Your task to perform on an android device: turn on wifi Image 0: 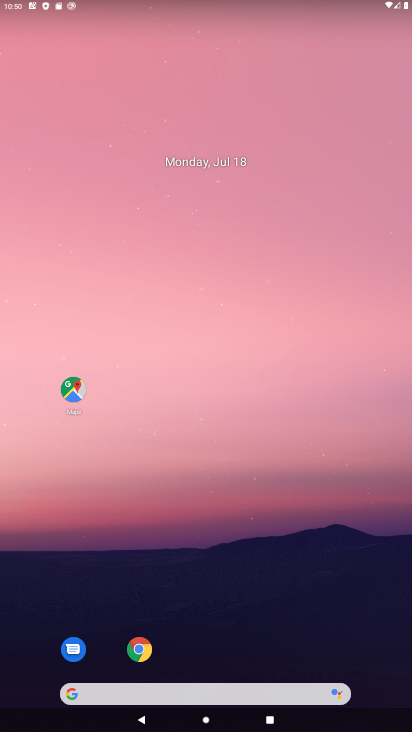
Step 0: drag from (236, 561) to (161, 130)
Your task to perform on an android device: turn on wifi Image 1: 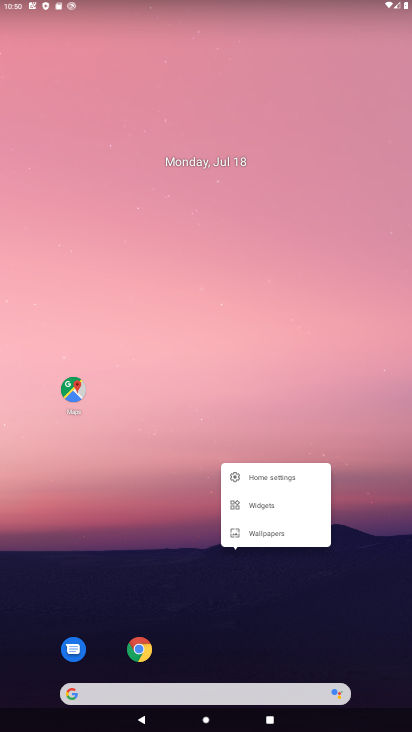
Step 1: click (160, 525)
Your task to perform on an android device: turn on wifi Image 2: 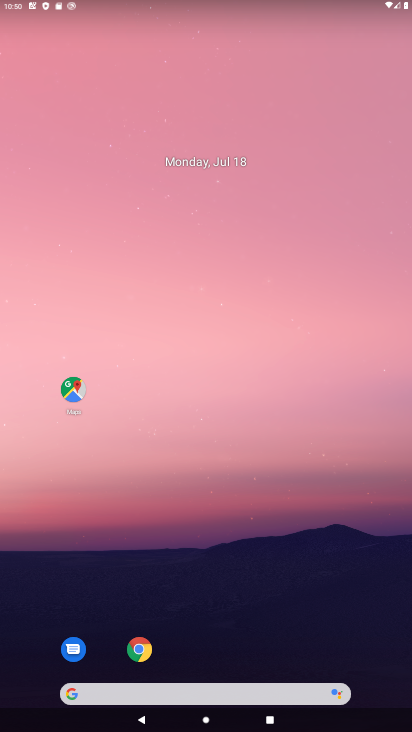
Step 2: drag from (192, 594) to (145, 13)
Your task to perform on an android device: turn on wifi Image 3: 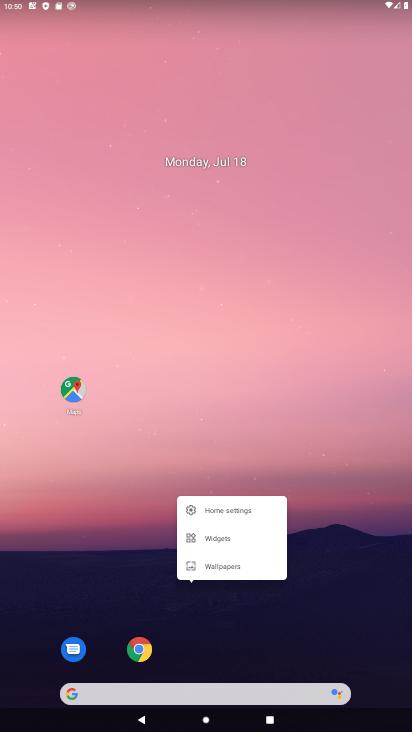
Step 3: click (178, 399)
Your task to perform on an android device: turn on wifi Image 4: 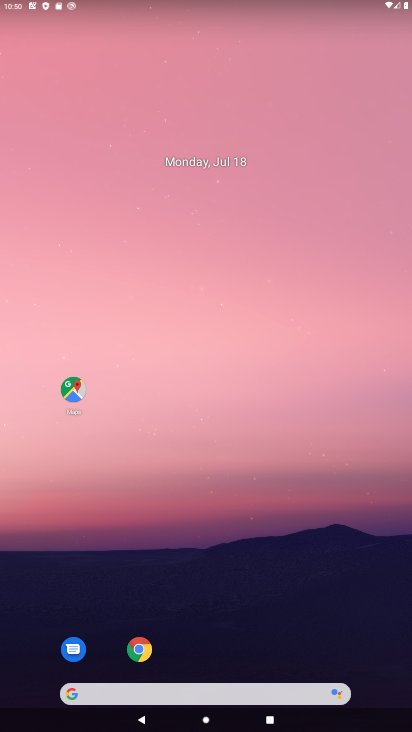
Step 4: drag from (257, 550) to (202, 180)
Your task to perform on an android device: turn on wifi Image 5: 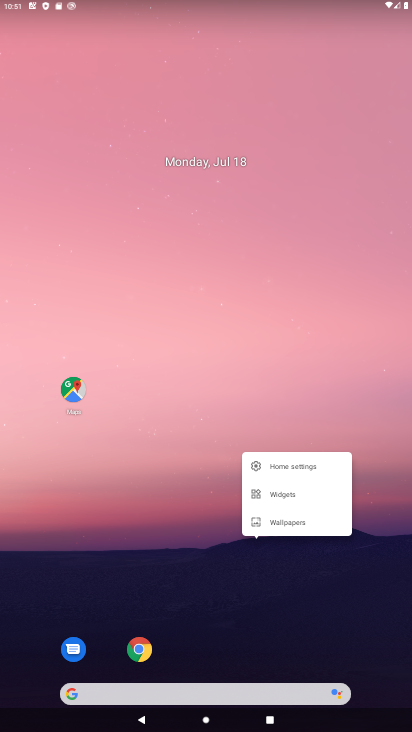
Step 5: click (124, 599)
Your task to perform on an android device: turn on wifi Image 6: 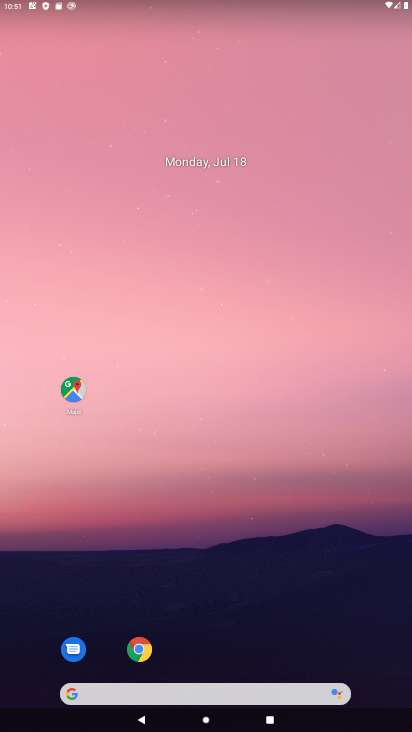
Step 6: drag from (190, 588) to (230, 118)
Your task to perform on an android device: turn on wifi Image 7: 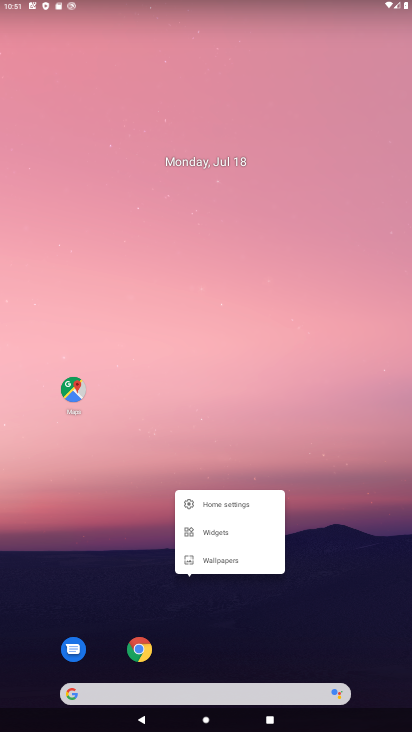
Step 7: click (358, 493)
Your task to perform on an android device: turn on wifi Image 8: 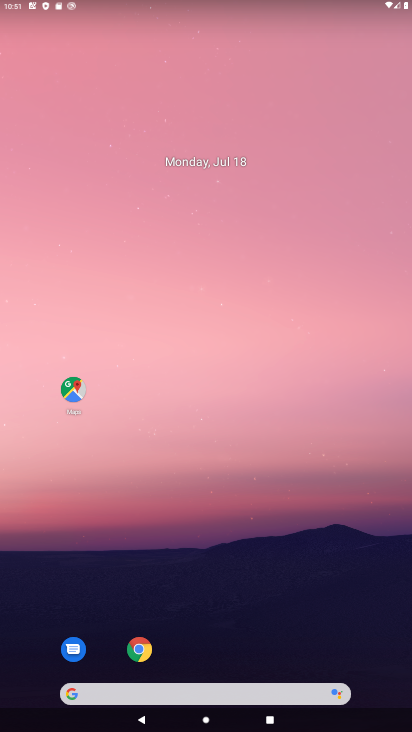
Step 8: drag from (235, 612) to (147, 155)
Your task to perform on an android device: turn on wifi Image 9: 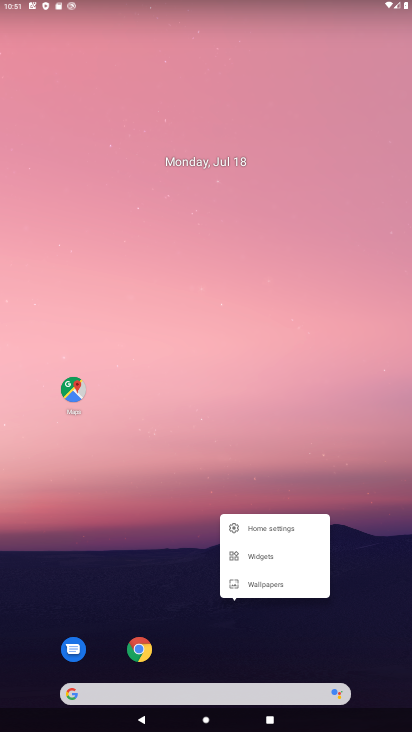
Step 9: click (71, 537)
Your task to perform on an android device: turn on wifi Image 10: 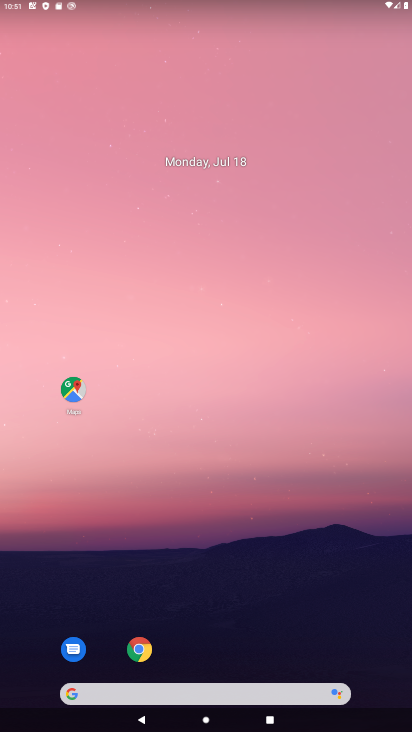
Step 10: click (71, 537)
Your task to perform on an android device: turn on wifi Image 11: 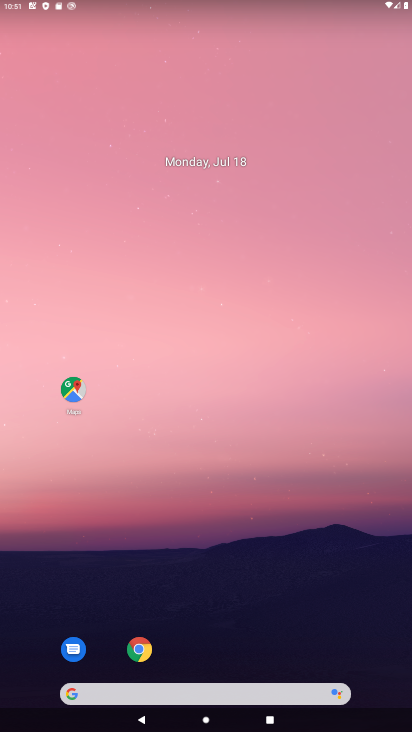
Step 11: drag from (269, 560) to (251, 91)
Your task to perform on an android device: turn on wifi Image 12: 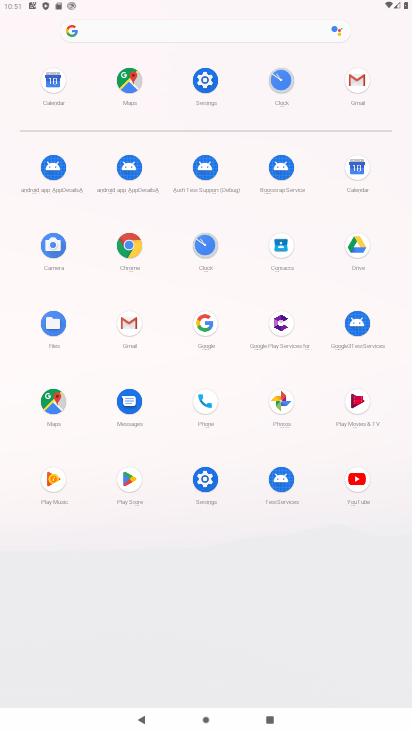
Step 12: click (201, 72)
Your task to perform on an android device: turn on wifi Image 13: 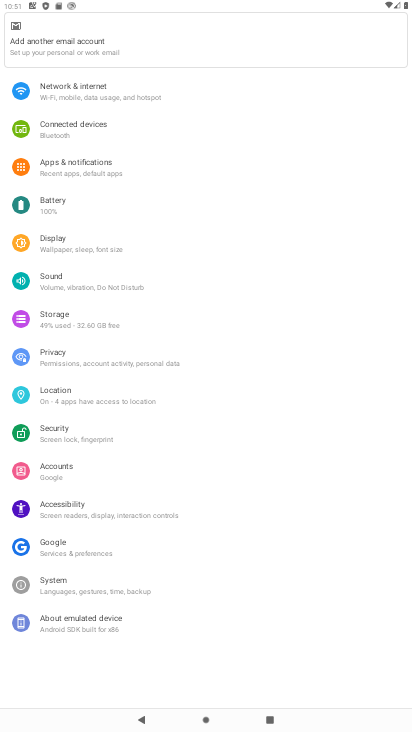
Step 13: click (82, 86)
Your task to perform on an android device: turn on wifi Image 14: 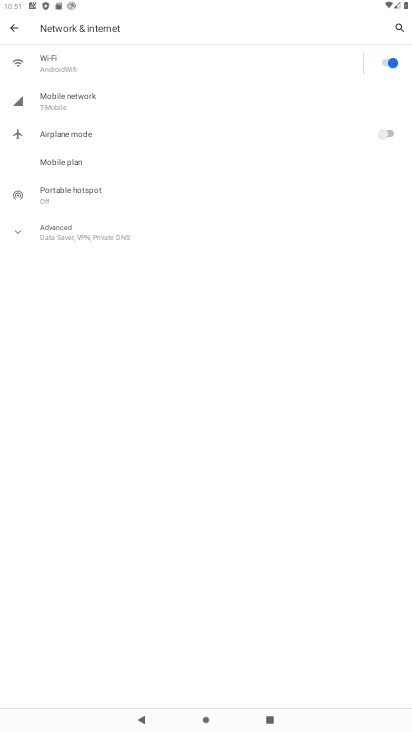
Step 14: click (84, 63)
Your task to perform on an android device: turn on wifi Image 15: 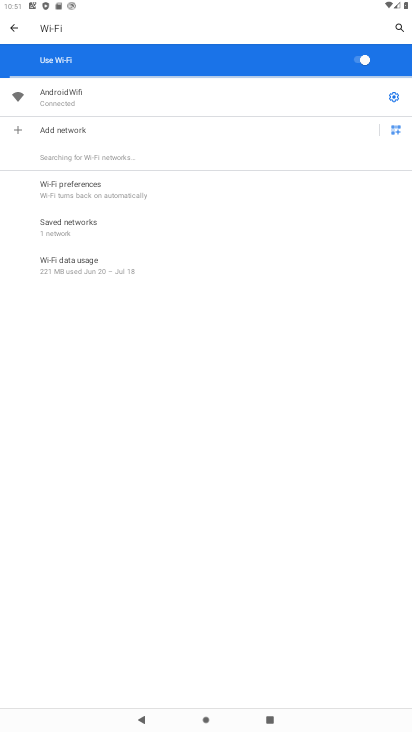
Step 15: task complete